Your task to perform on an android device: turn off notifications settings in the gmail app Image 0: 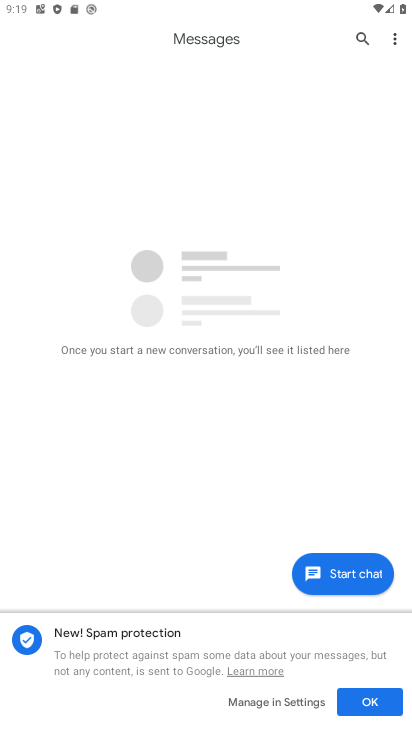
Step 0: press home button
Your task to perform on an android device: turn off notifications settings in the gmail app Image 1: 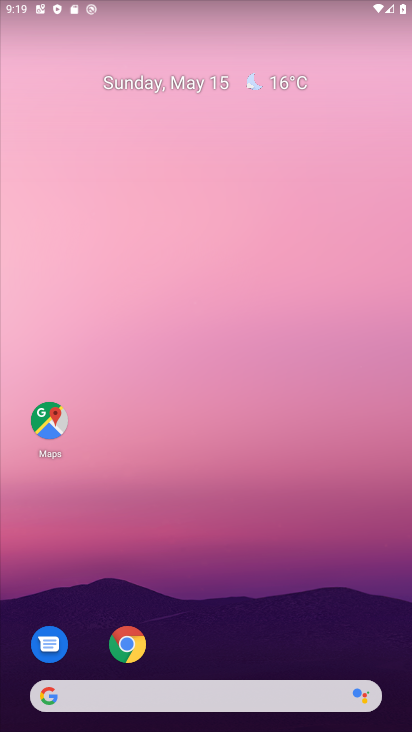
Step 1: drag from (159, 630) to (209, 313)
Your task to perform on an android device: turn off notifications settings in the gmail app Image 2: 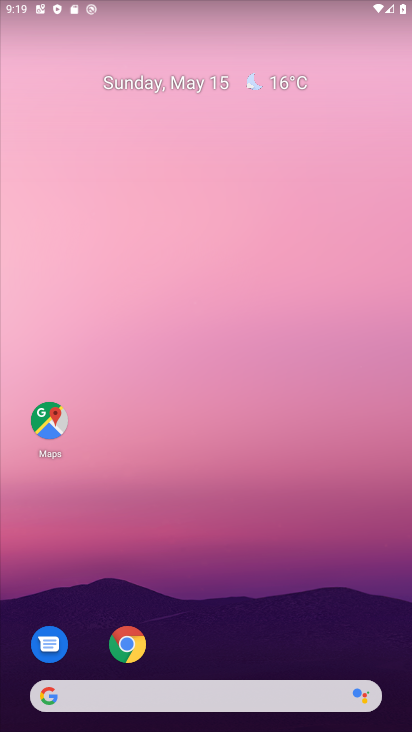
Step 2: drag from (220, 674) to (249, 344)
Your task to perform on an android device: turn off notifications settings in the gmail app Image 3: 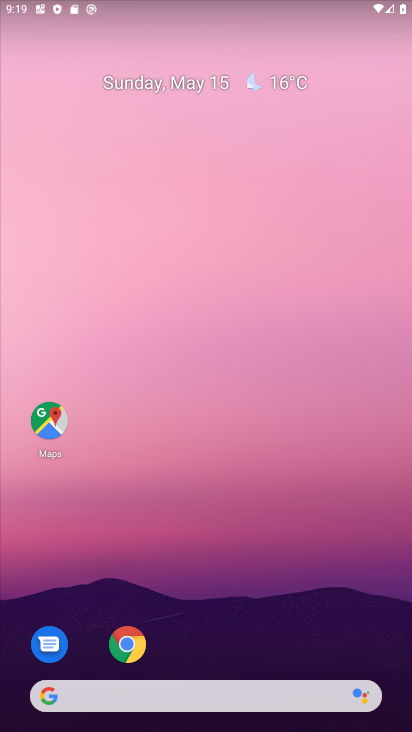
Step 3: drag from (228, 676) to (229, 230)
Your task to perform on an android device: turn off notifications settings in the gmail app Image 4: 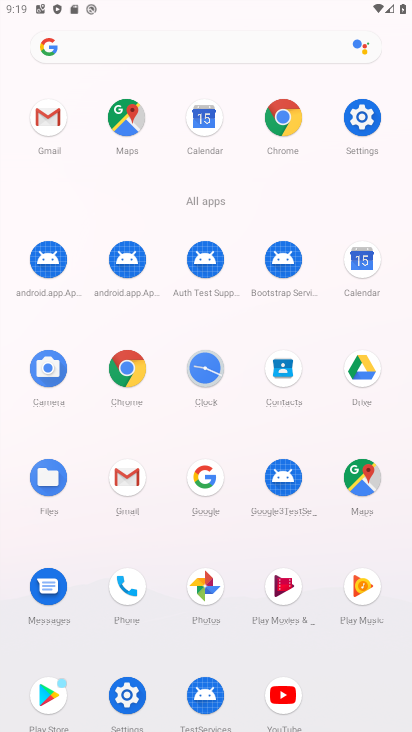
Step 4: click (47, 120)
Your task to perform on an android device: turn off notifications settings in the gmail app Image 5: 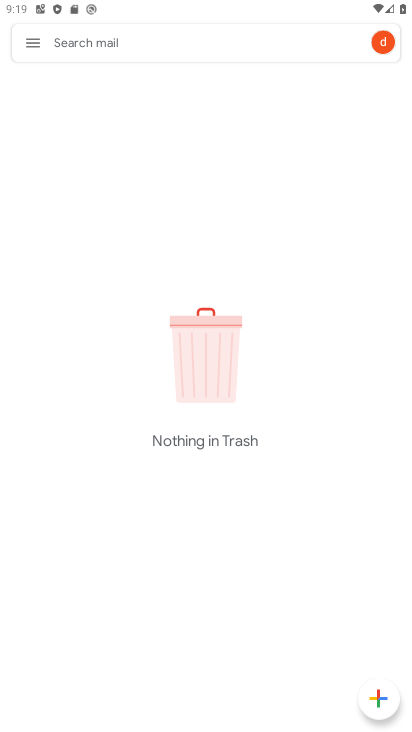
Step 5: click (26, 42)
Your task to perform on an android device: turn off notifications settings in the gmail app Image 6: 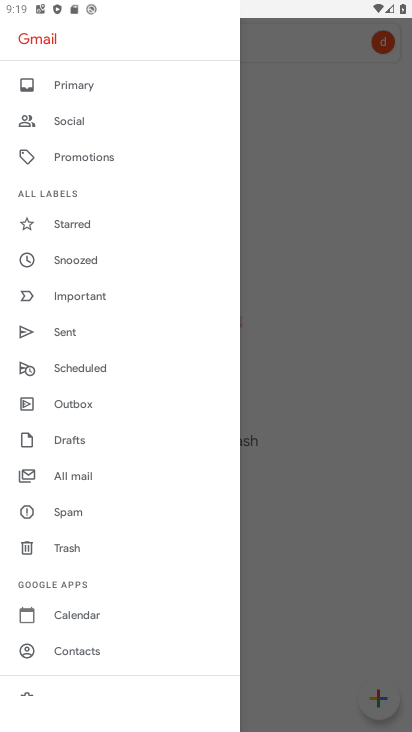
Step 6: drag from (86, 655) to (160, 320)
Your task to perform on an android device: turn off notifications settings in the gmail app Image 7: 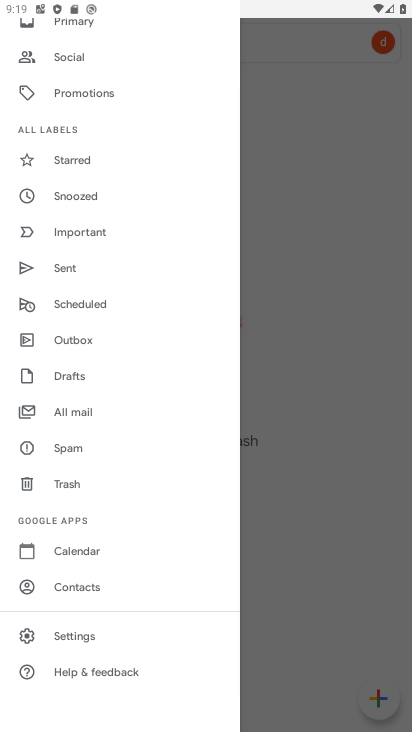
Step 7: click (70, 634)
Your task to perform on an android device: turn off notifications settings in the gmail app Image 8: 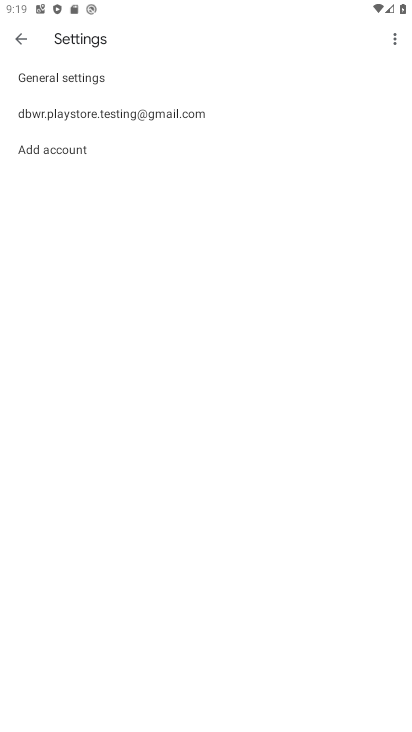
Step 8: click (74, 71)
Your task to perform on an android device: turn off notifications settings in the gmail app Image 9: 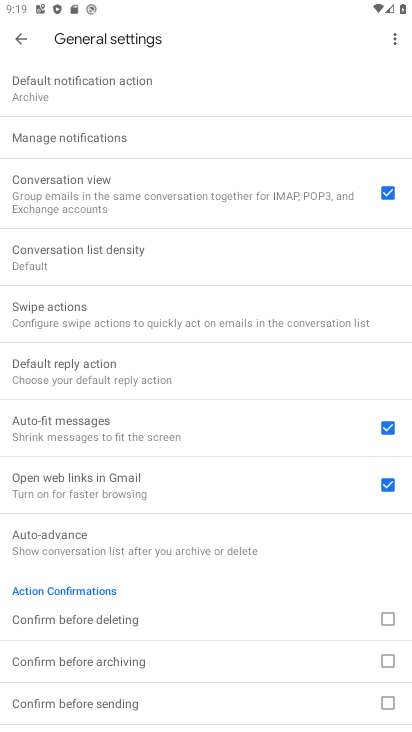
Step 9: click (111, 139)
Your task to perform on an android device: turn off notifications settings in the gmail app Image 10: 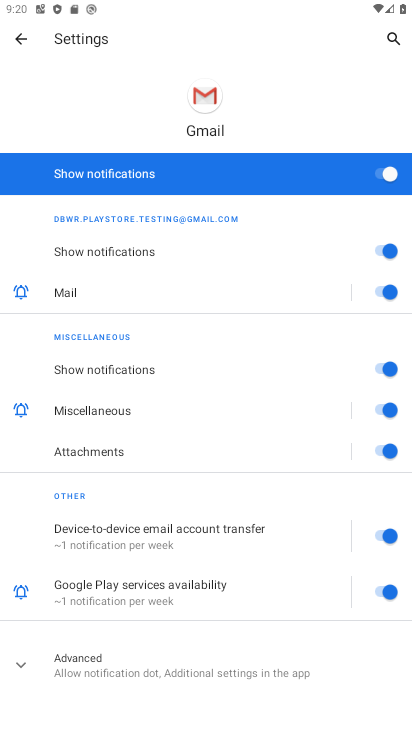
Step 10: click (375, 169)
Your task to perform on an android device: turn off notifications settings in the gmail app Image 11: 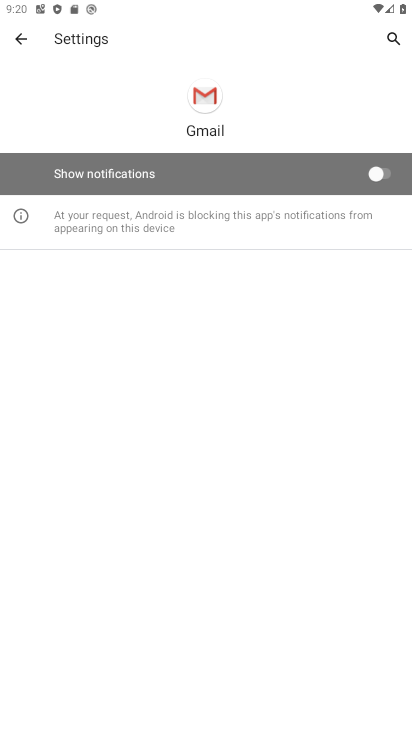
Step 11: task complete